Your task to perform on an android device: Open Youtube and go to the subscriptions tab Image 0: 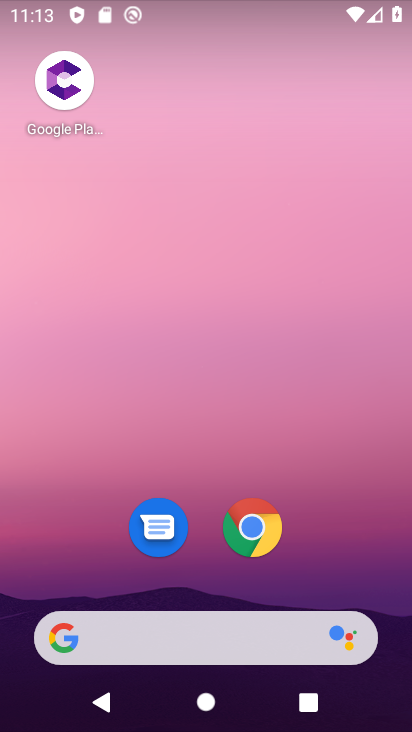
Step 0: drag from (254, 629) to (227, 394)
Your task to perform on an android device: Open Youtube and go to the subscriptions tab Image 1: 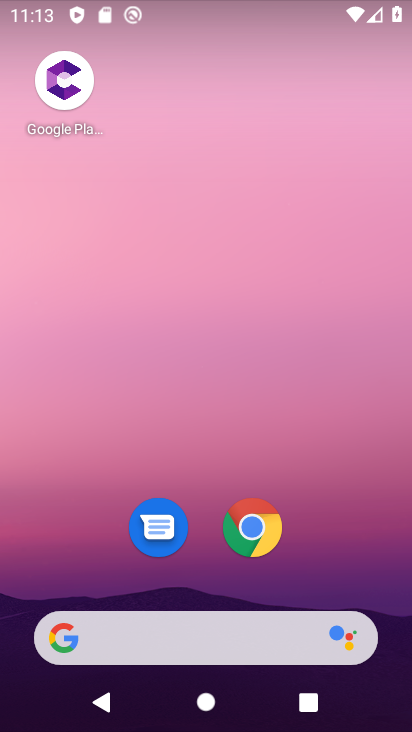
Step 1: drag from (240, 654) to (197, 75)
Your task to perform on an android device: Open Youtube and go to the subscriptions tab Image 2: 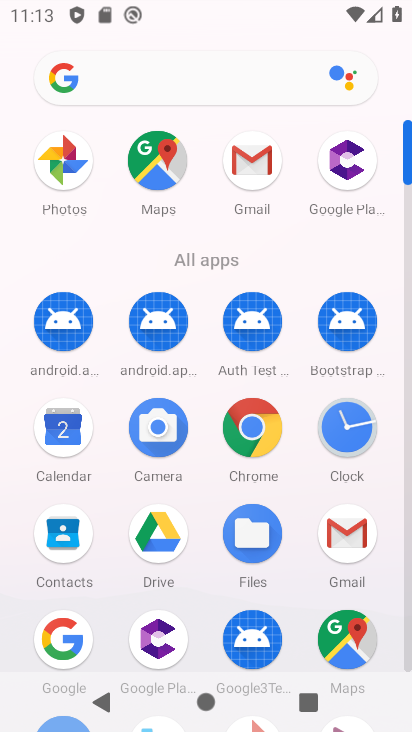
Step 2: drag from (235, 572) to (222, 59)
Your task to perform on an android device: Open Youtube and go to the subscriptions tab Image 3: 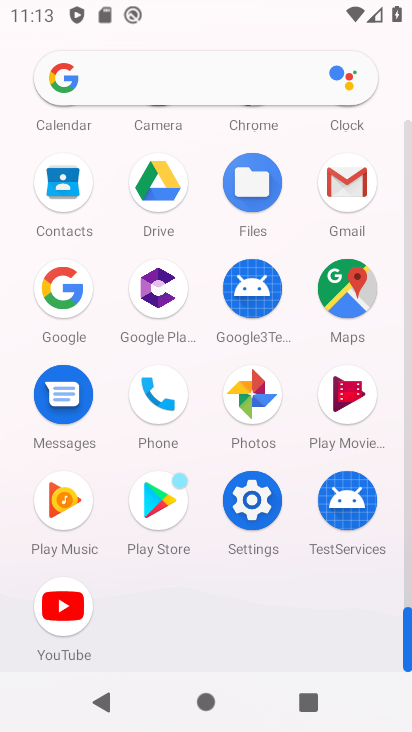
Step 3: click (69, 602)
Your task to perform on an android device: Open Youtube and go to the subscriptions tab Image 4: 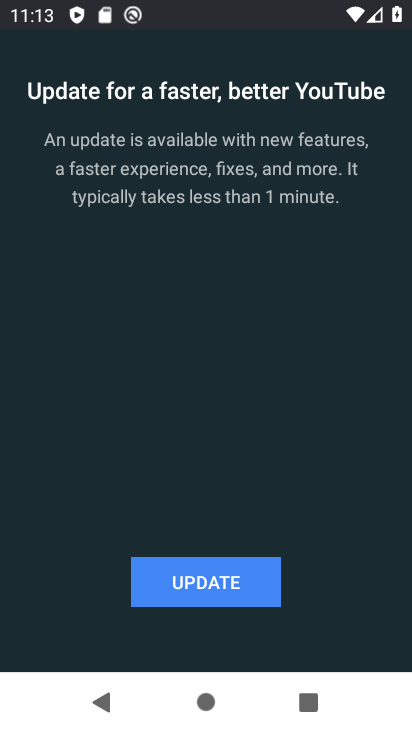
Step 4: click (196, 584)
Your task to perform on an android device: Open Youtube and go to the subscriptions tab Image 5: 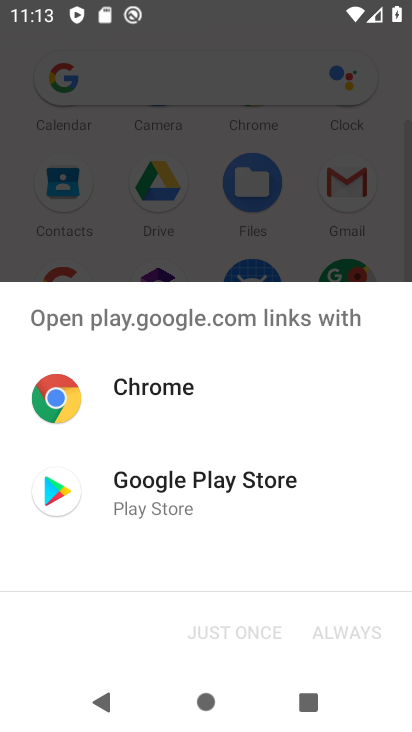
Step 5: click (157, 483)
Your task to perform on an android device: Open Youtube and go to the subscriptions tab Image 6: 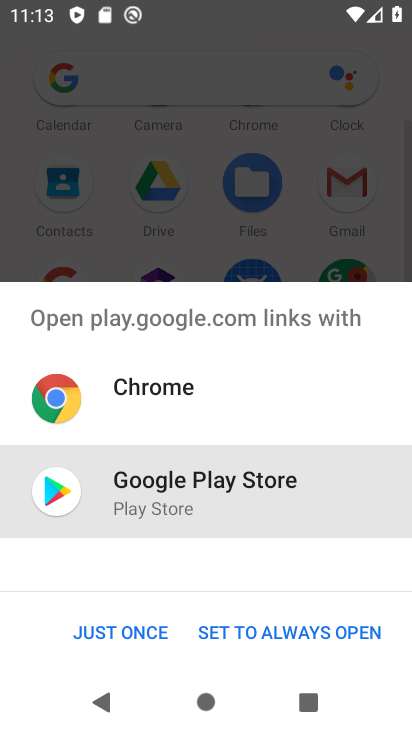
Step 6: click (87, 635)
Your task to perform on an android device: Open Youtube and go to the subscriptions tab Image 7: 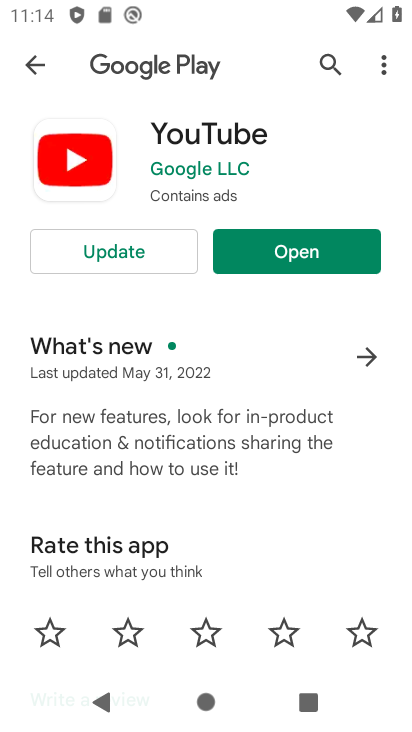
Step 7: click (147, 256)
Your task to perform on an android device: Open Youtube and go to the subscriptions tab Image 8: 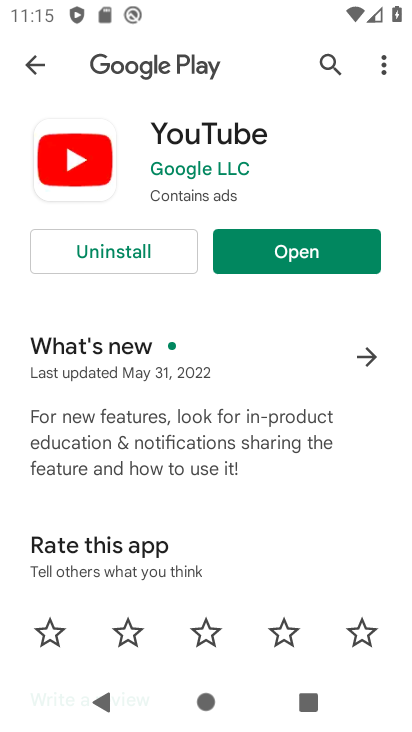
Step 8: click (311, 250)
Your task to perform on an android device: Open Youtube and go to the subscriptions tab Image 9: 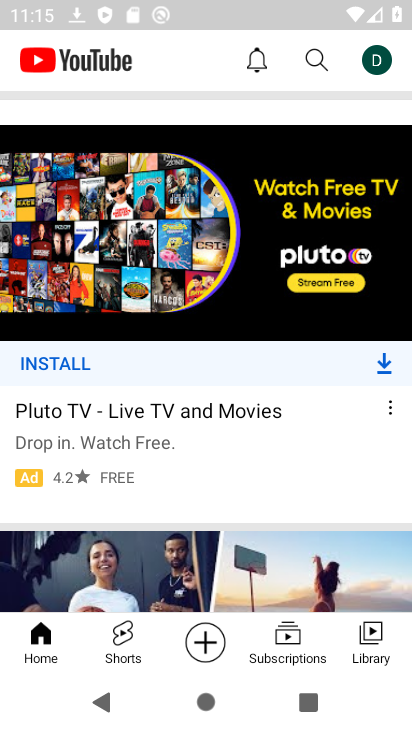
Step 9: click (275, 637)
Your task to perform on an android device: Open Youtube and go to the subscriptions tab Image 10: 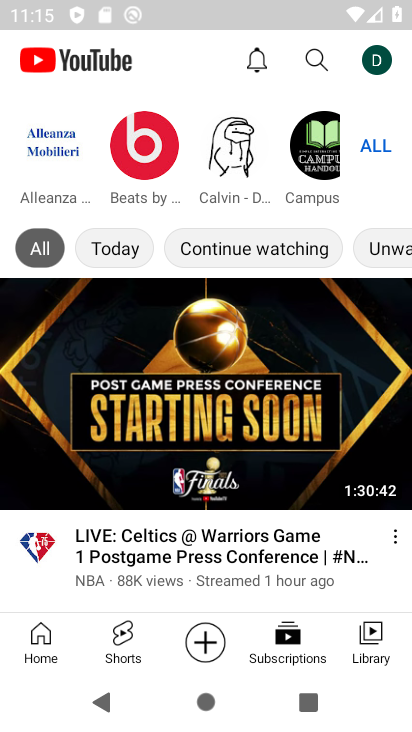
Step 10: task complete